Your task to perform on an android device: Turn off the flashlight Image 0: 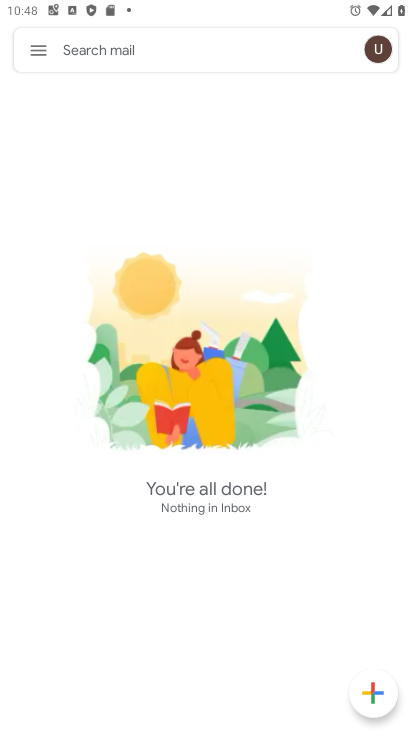
Step 0: drag from (331, 12) to (257, 541)
Your task to perform on an android device: Turn off the flashlight Image 1: 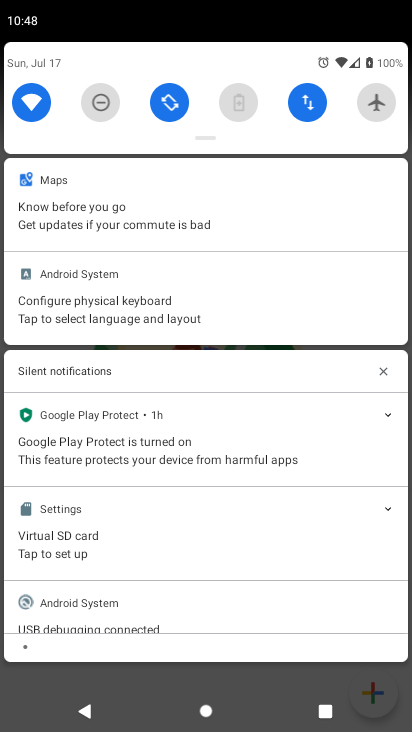
Step 1: task complete